Your task to perform on an android device: uninstall "Fetch Rewards" Image 0: 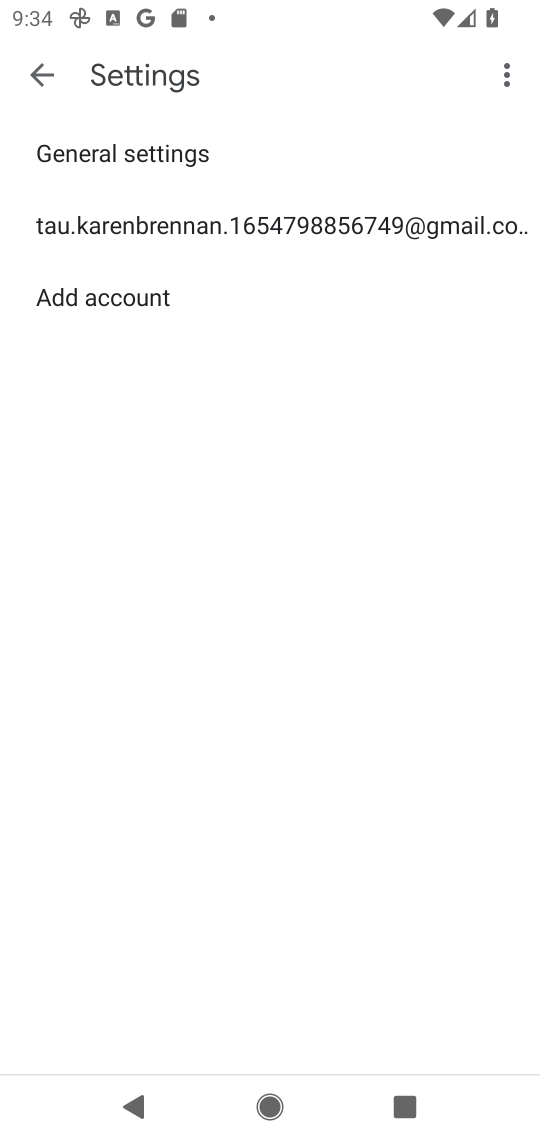
Step 0: press home button
Your task to perform on an android device: uninstall "Fetch Rewards" Image 1: 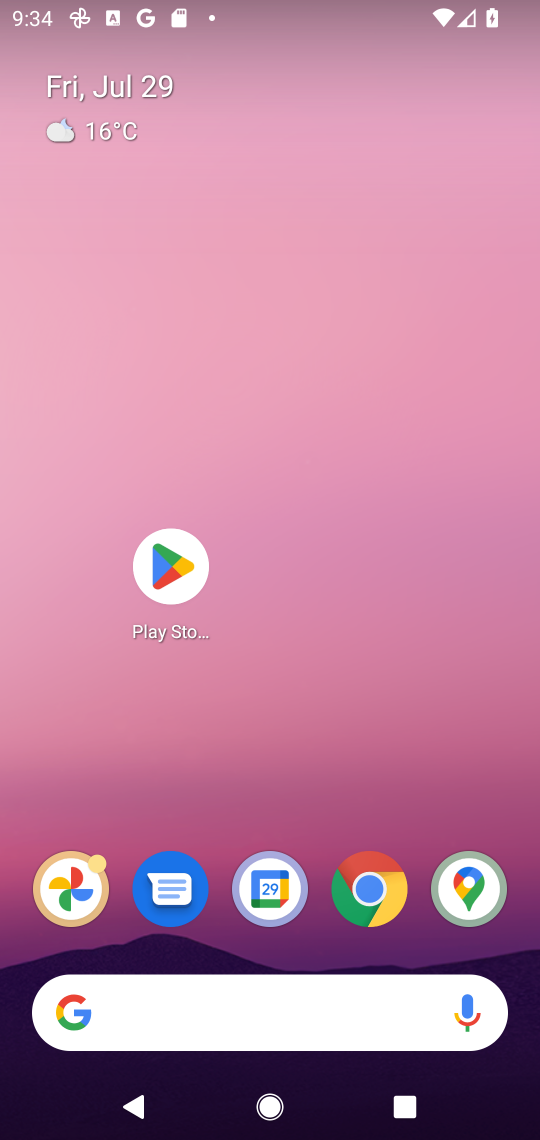
Step 1: click (170, 553)
Your task to perform on an android device: uninstall "Fetch Rewards" Image 2: 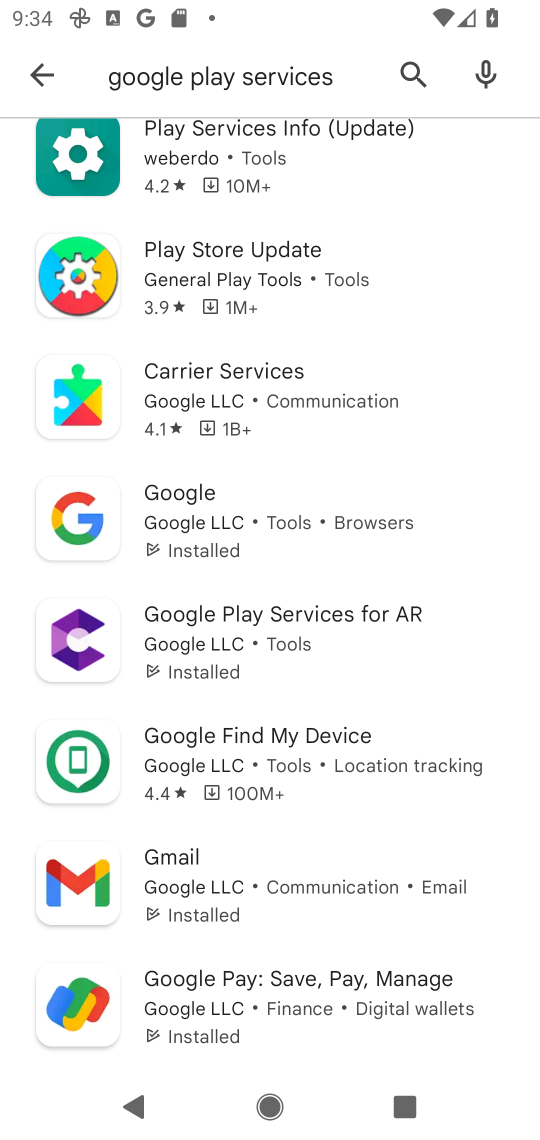
Step 2: click (410, 66)
Your task to perform on an android device: uninstall "Fetch Rewards" Image 3: 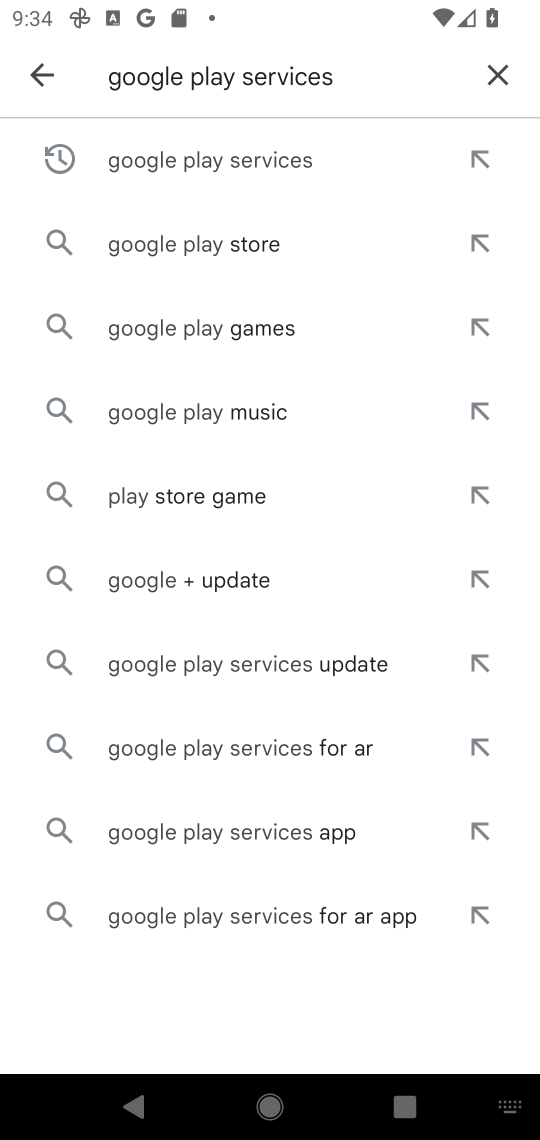
Step 3: click (505, 66)
Your task to perform on an android device: uninstall "Fetch Rewards" Image 4: 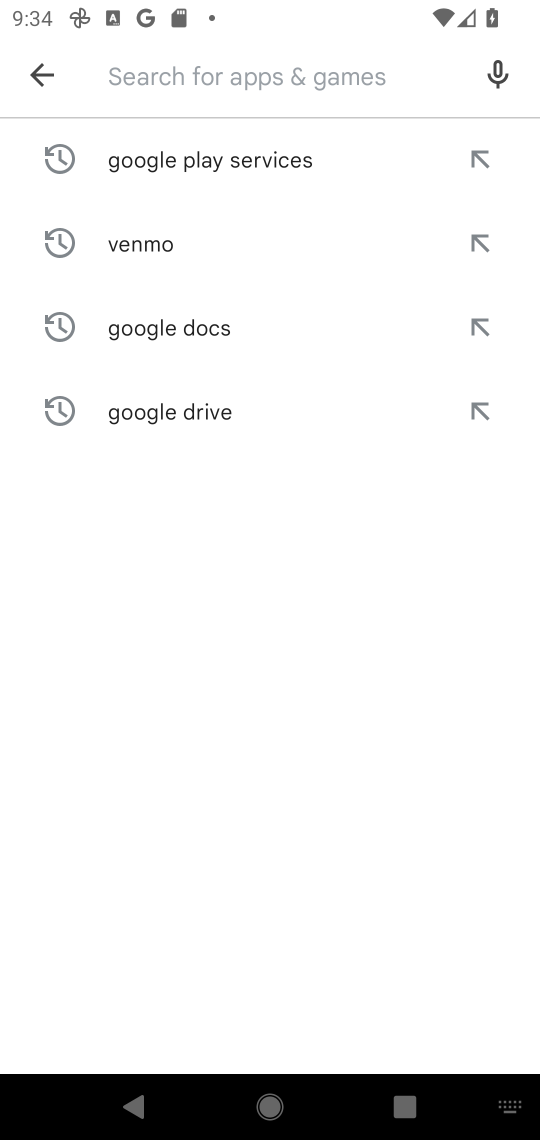
Step 4: type "Fetch Rewards"
Your task to perform on an android device: uninstall "Fetch Rewards" Image 5: 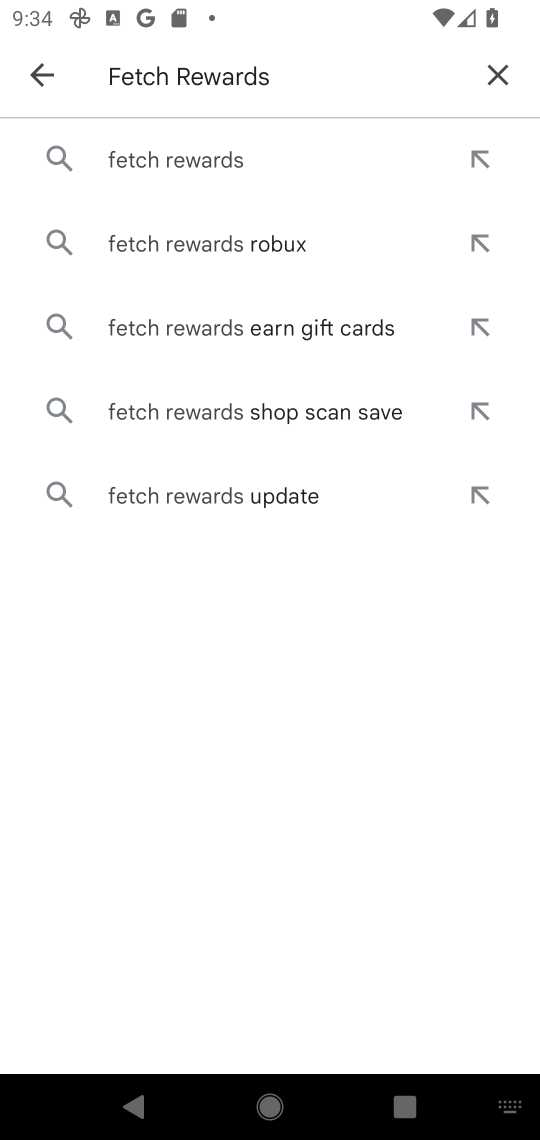
Step 5: click (209, 149)
Your task to perform on an android device: uninstall "Fetch Rewards" Image 6: 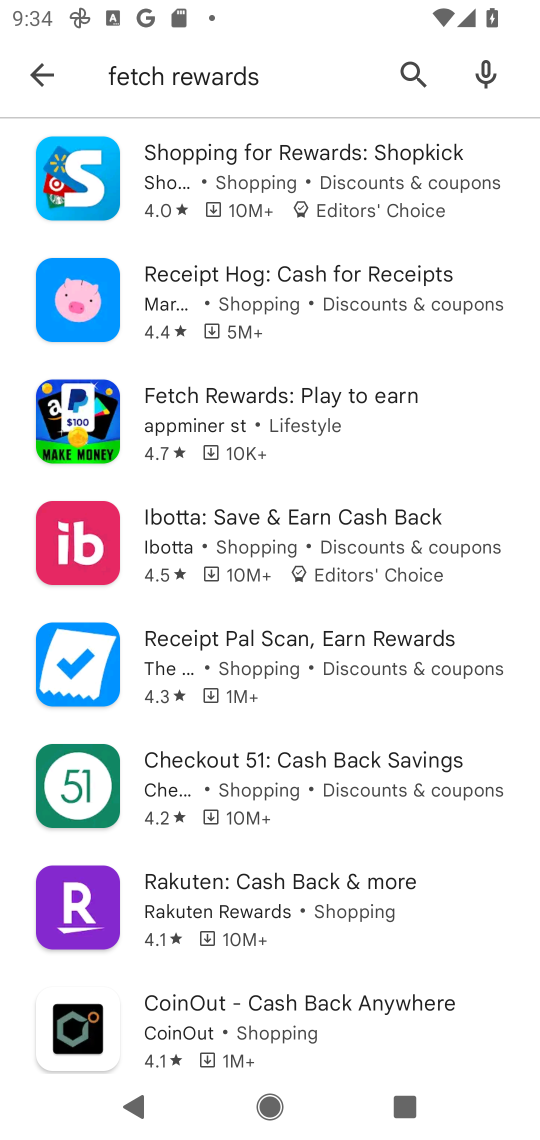
Step 6: click (277, 413)
Your task to perform on an android device: uninstall "Fetch Rewards" Image 7: 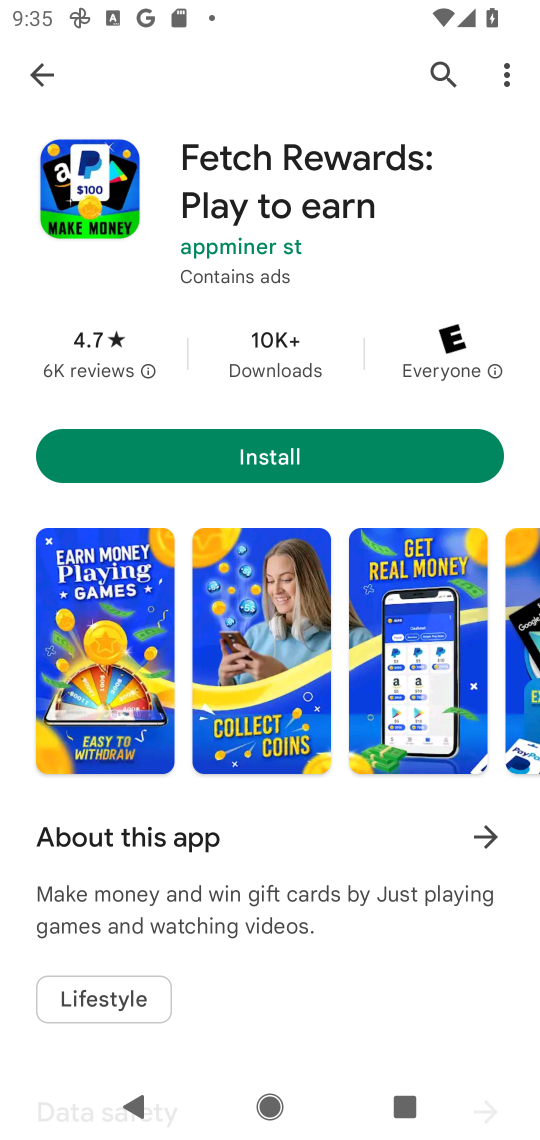
Step 7: task complete